Your task to perform on an android device: Check the weather Image 0: 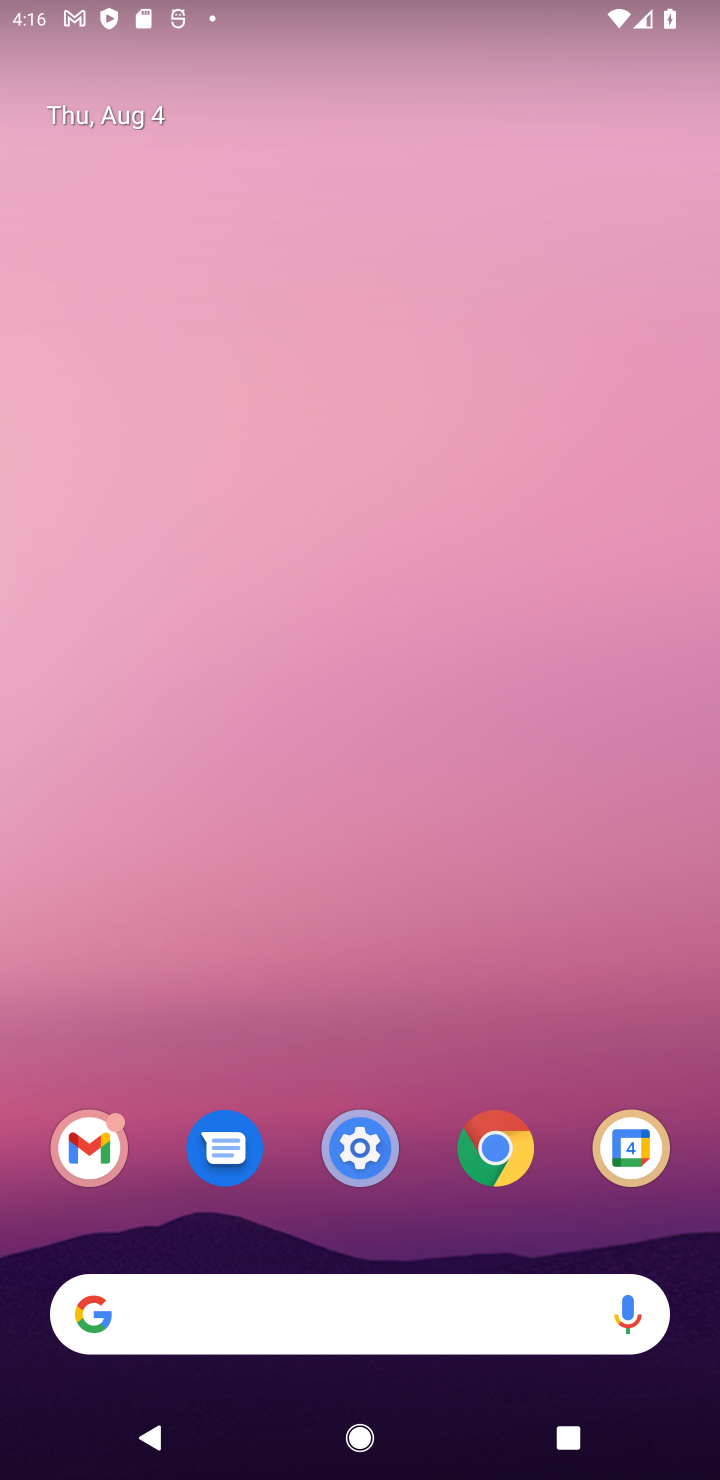
Step 0: drag from (5, 554) to (717, 711)
Your task to perform on an android device: Check the weather Image 1: 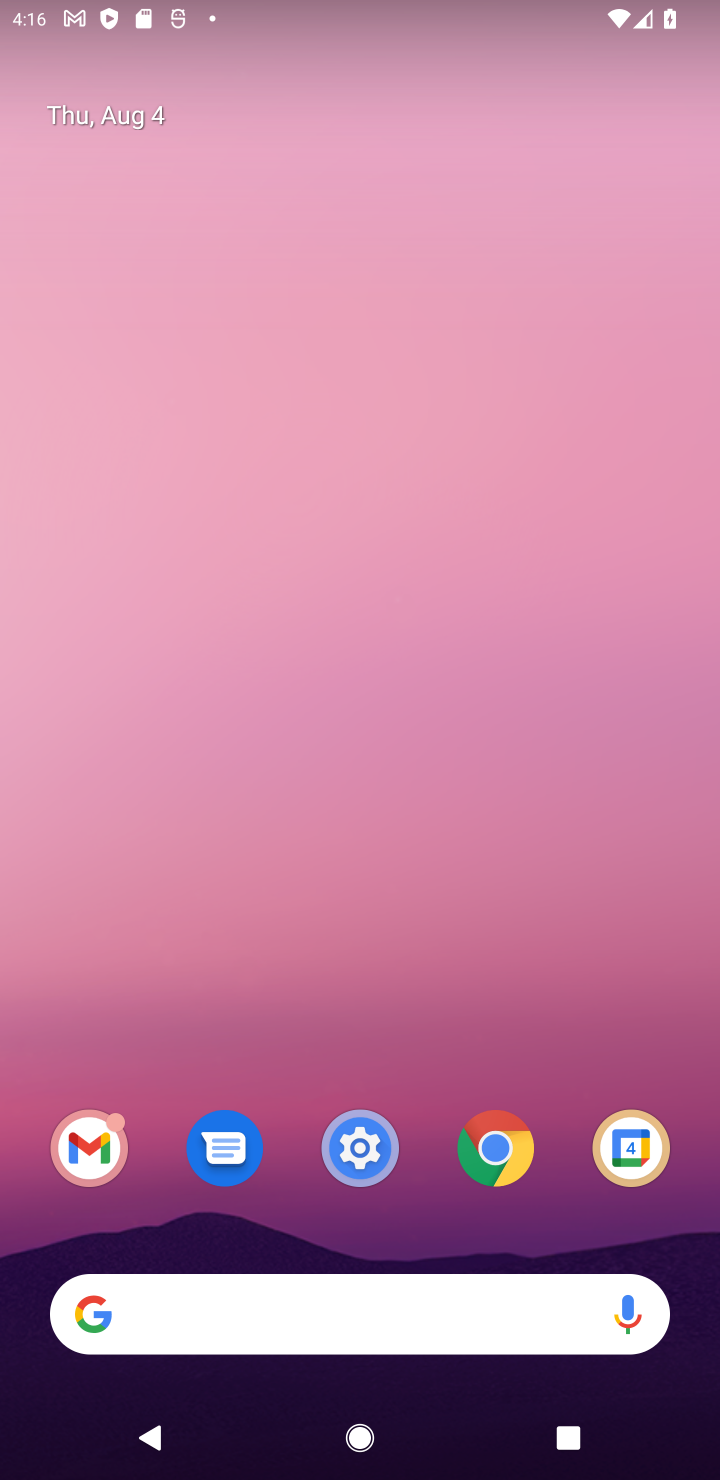
Step 1: click (223, 1299)
Your task to perform on an android device: Check the weather Image 2: 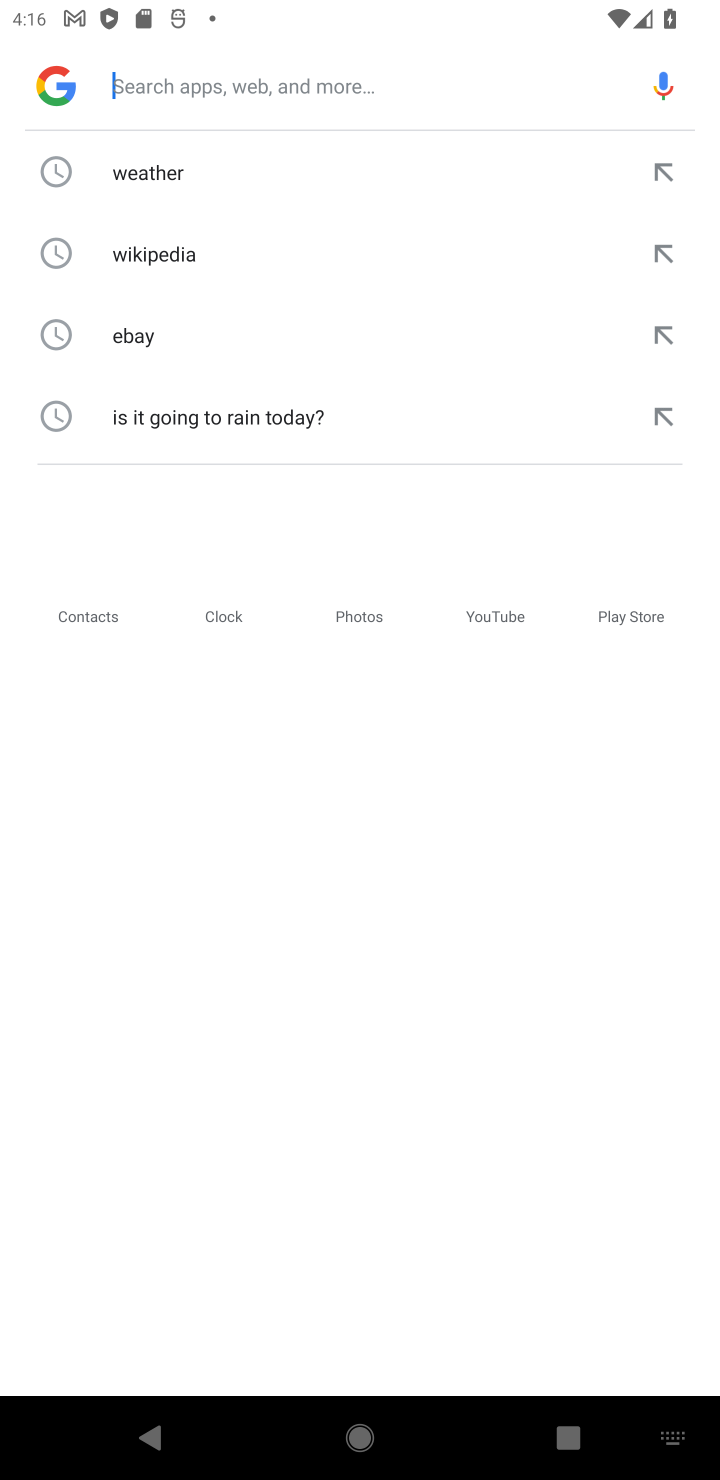
Step 2: click (164, 174)
Your task to perform on an android device: Check the weather Image 3: 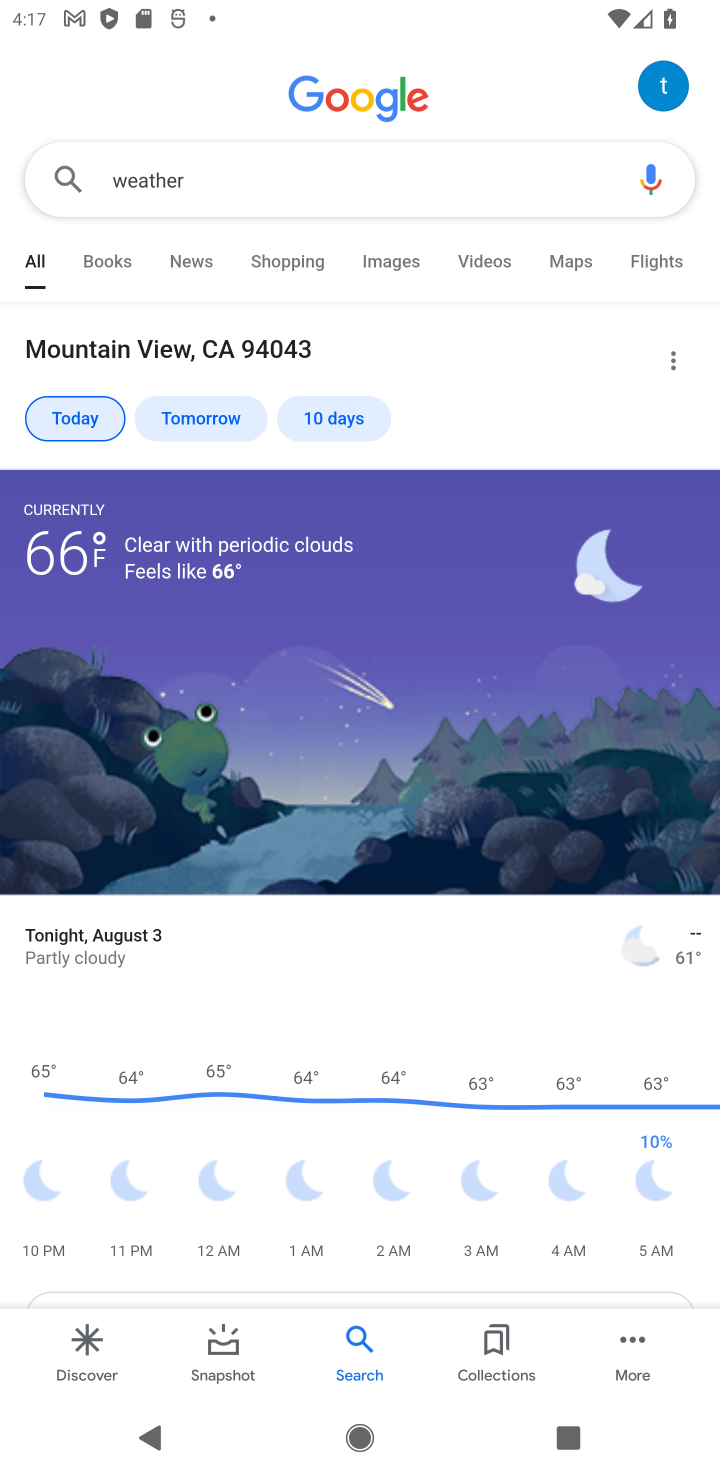
Step 3: task complete